Your task to perform on an android device: Open the calendar app, open the side menu, and click the "Day" option Image 0: 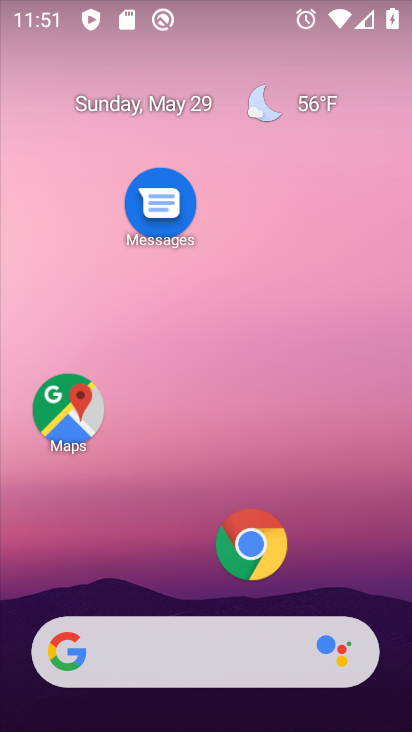
Step 0: click (219, 113)
Your task to perform on an android device: Open the calendar app, open the side menu, and click the "Day" option Image 1: 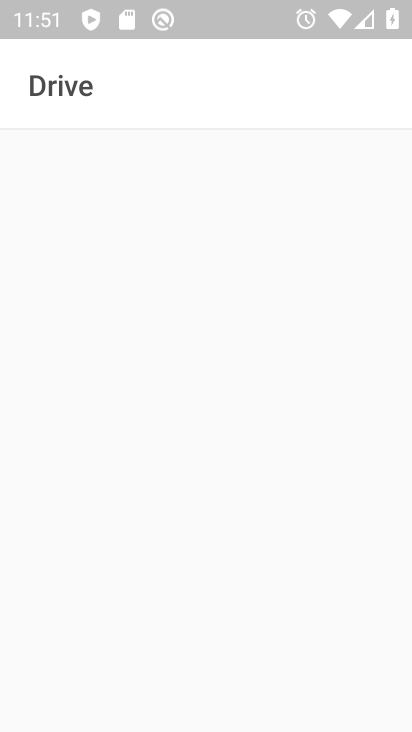
Step 1: drag from (186, 589) to (195, 227)
Your task to perform on an android device: Open the calendar app, open the side menu, and click the "Day" option Image 2: 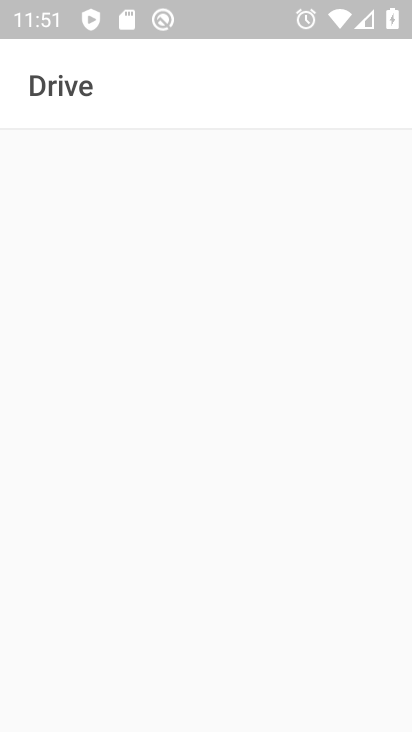
Step 2: press home button
Your task to perform on an android device: Open the calendar app, open the side menu, and click the "Day" option Image 3: 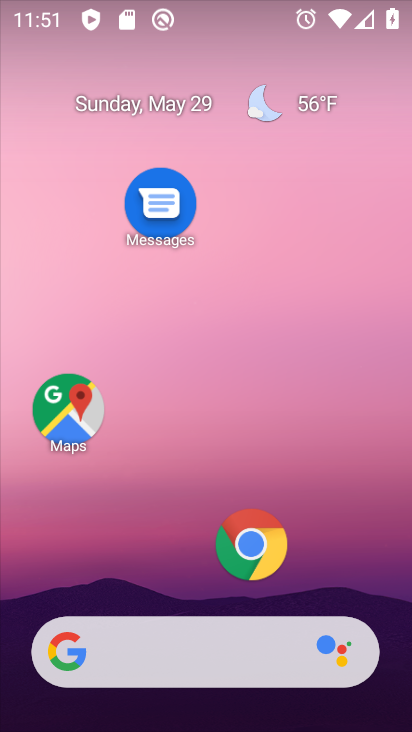
Step 3: drag from (186, 558) to (163, 138)
Your task to perform on an android device: Open the calendar app, open the side menu, and click the "Day" option Image 4: 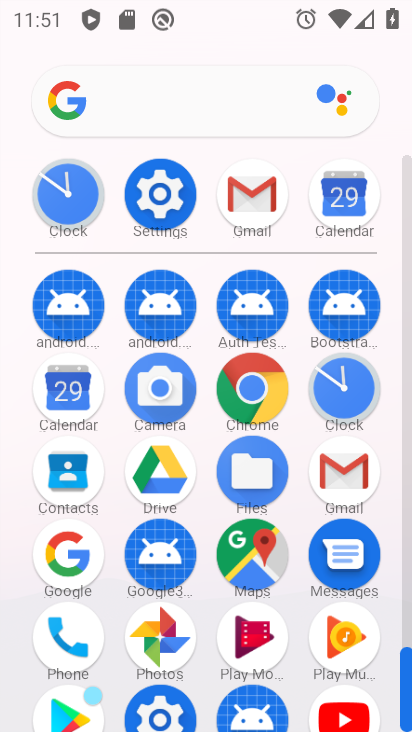
Step 4: click (65, 382)
Your task to perform on an android device: Open the calendar app, open the side menu, and click the "Day" option Image 5: 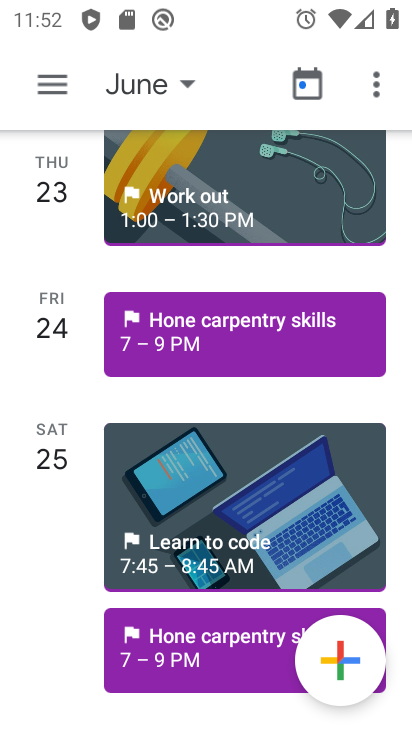
Step 5: click (46, 94)
Your task to perform on an android device: Open the calendar app, open the side menu, and click the "Day" option Image 6: 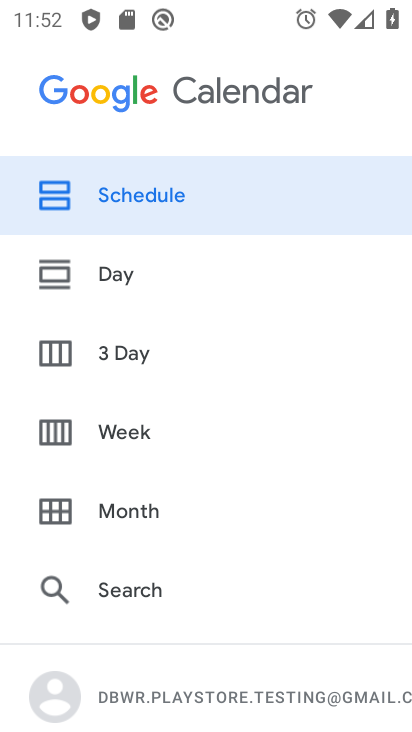
Step 6: click (93, 264)
Your task to perform on an android device: Open the calendar app, open the side menu, and click the "Day" option Image 7: 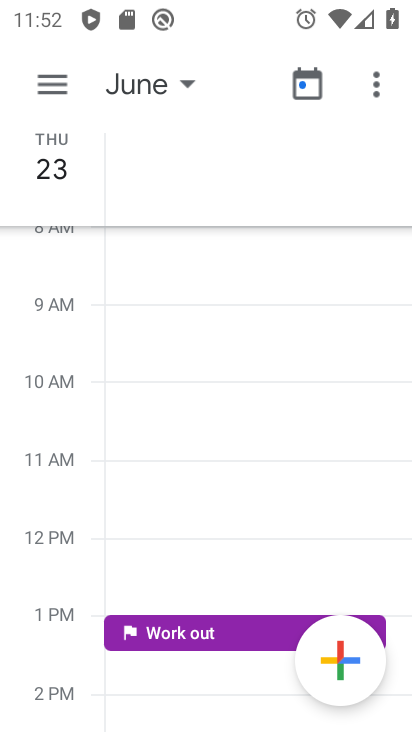
Step 7: task complete